Your task to perform on an android device: toggle translation in the chrome app Image 0: 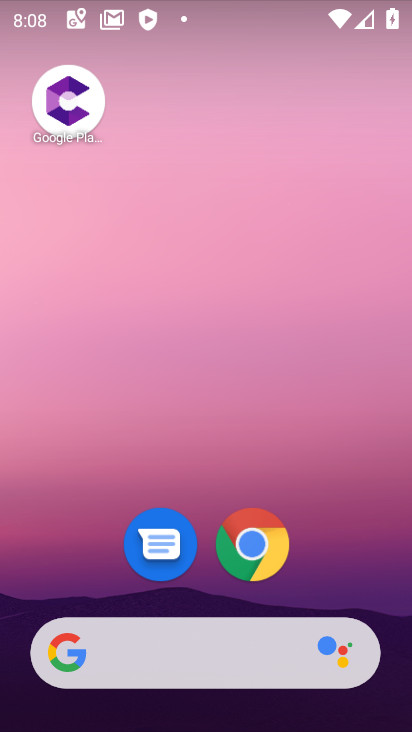
Step 0: drag from (392, 651) to (269, 74)
Your task to perform on an android device: toggle translation in the chrome app Image 1: 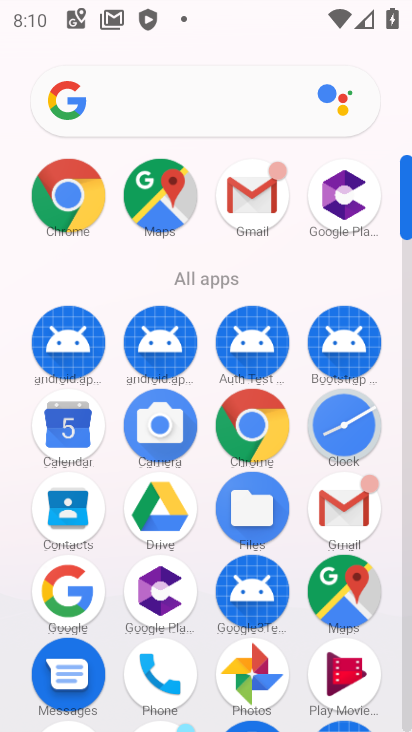
Step 1: click (254, 441)
Your task to perform on an android device: toggle translation in the chrome app Image 2: 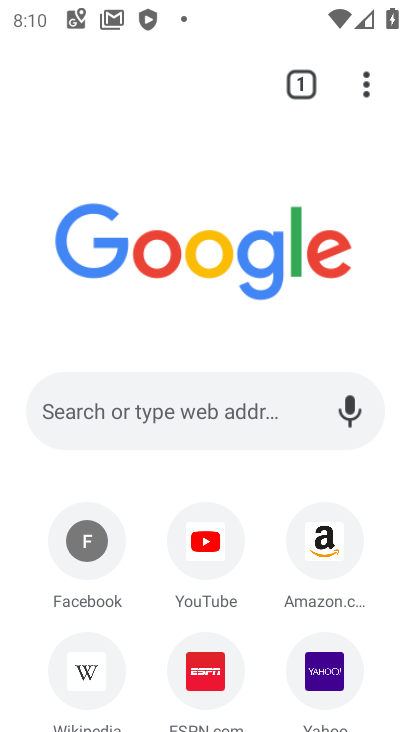
Step 2: click (365, 85)
Your task to perform on an android device: toggle translation in the chrome app Image 3: 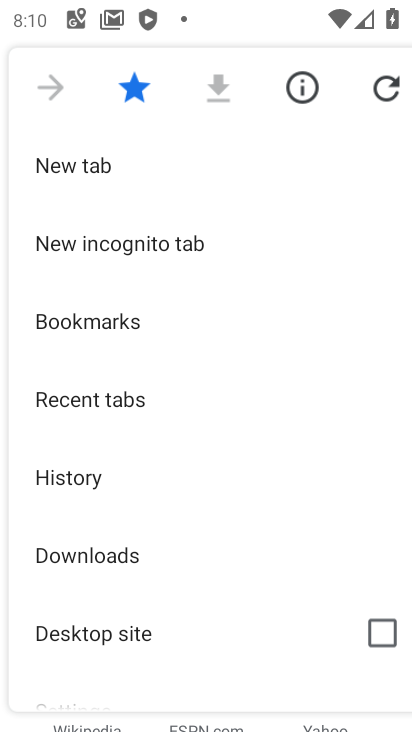
Step 3: drag from (153, 633) to (196, 211)
Your task to perform on an android device: toggle translation in the chrome app Image 4: 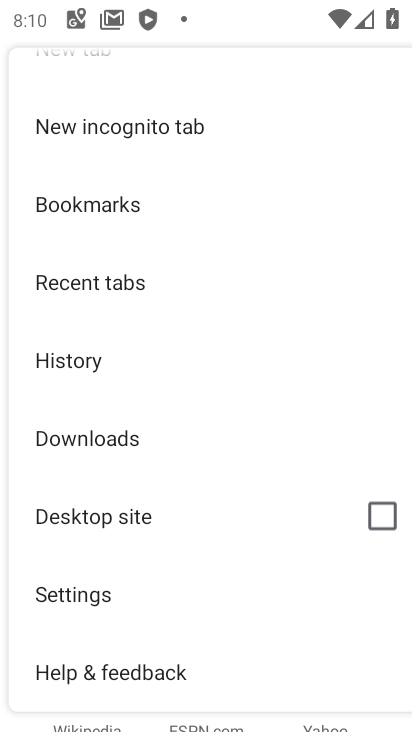
Step 4: click (140, 583)
Your task to perform on an android device: toggle translation in the chrome app Image 5: 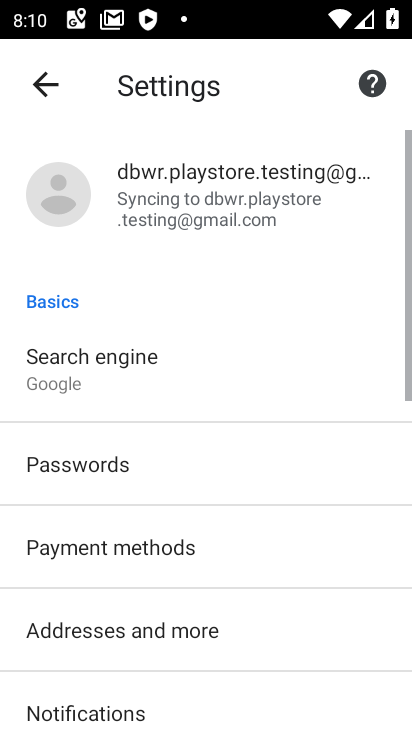
Step 5: drag from (138, 625) to (193, 101)
Your task to perform on an android device: toggle translation in the chrome app Image 6: 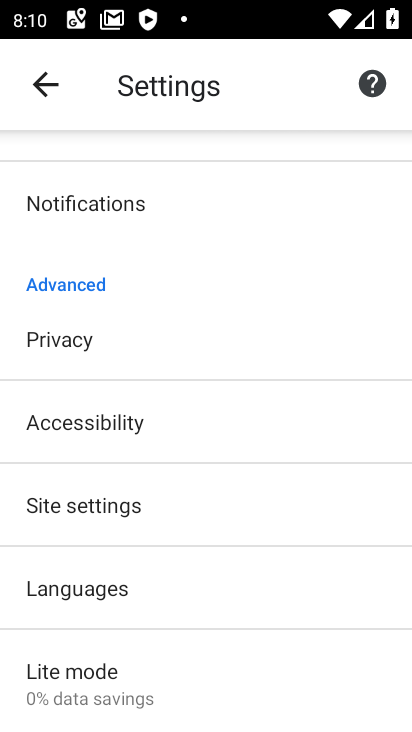
Step 6: click (190, 610)
Your task to perform on an android device: toggle translation in the chrome app Image 7: 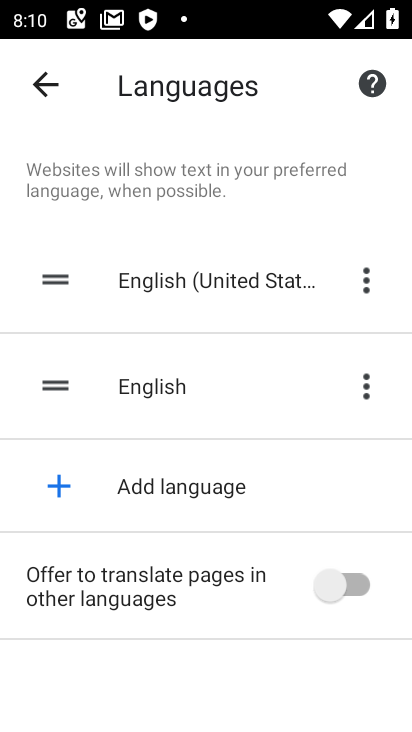
Step 7: click (271, 600)
Your task to perform on an android device: toggle translation in the chrome app Image 8: 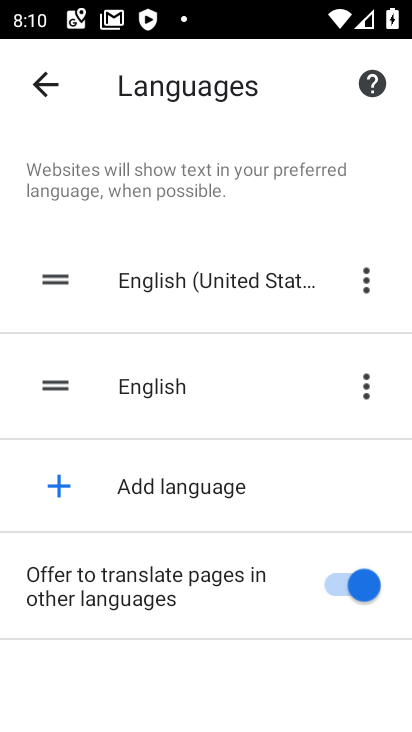
Step 8: task complete